Your task to perform on an android device: turn on showing notifications on the lock screen Image 0: 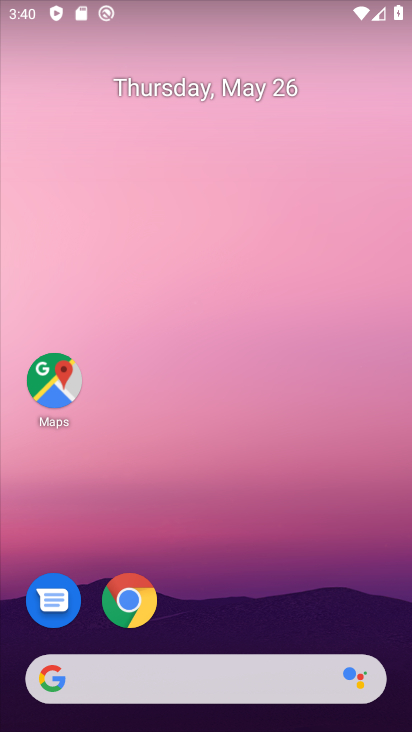
Step 0: drag from (198, 583) to (311, 18)
Your task to perform on an android device: turn on showing notifications on the lock screen Image 1: 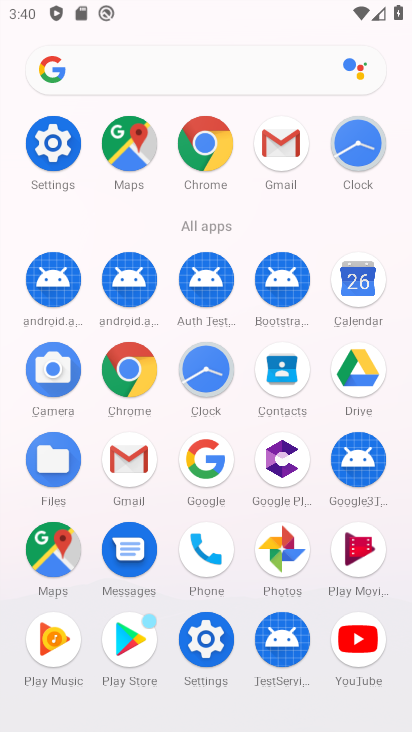
Step 1: click (57, 149)
Your task to perform on an android device: turn on showing notifications on the lock screen Image 2: 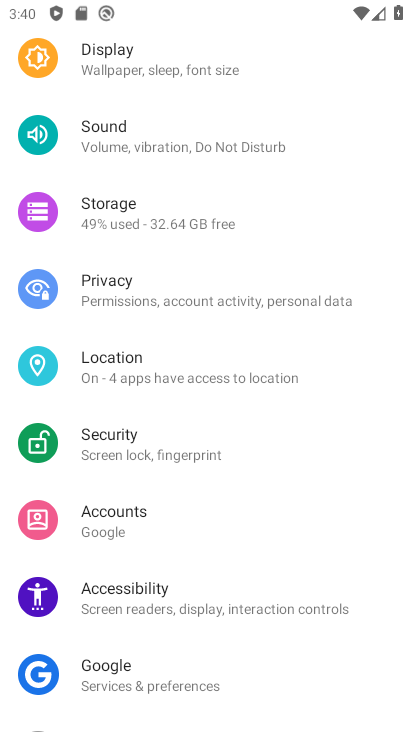
Step 2: drag from (191, 223) to (164, 532)
Your task to perform on an android device: turn on showing notifications on the lock screen Image 3: 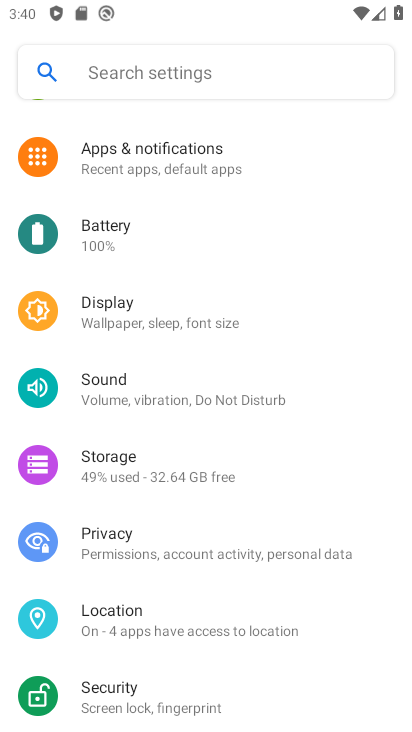
Step 3: click (170, 173)
Your task to perform on an android device: turn on showing notifications on the lock screen Image 4: 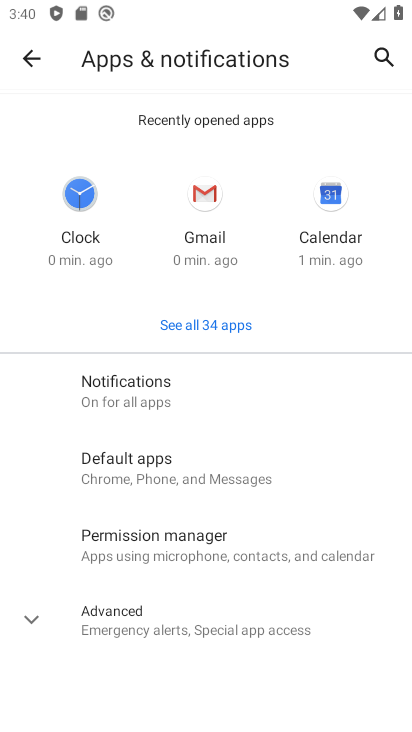
Step 4: click (167, 399)
Your task to perform on an android device: turn on showing notifications on the lock screen Image 5: 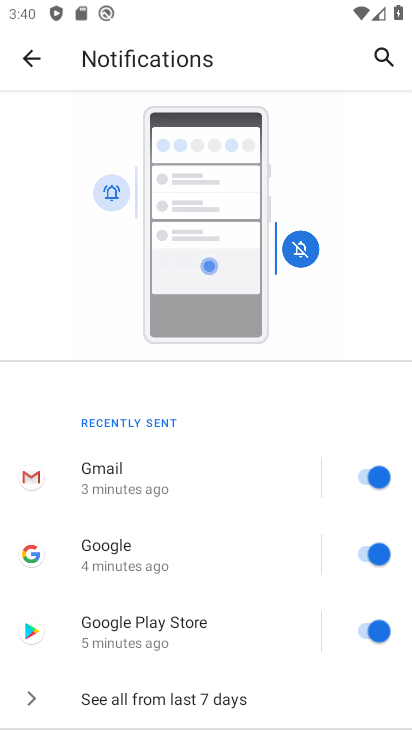
Step 5: drag from (171, 632) to (185, 411)
Your task to perform on an android device: turn on showing notifications on the lock screen Image 6: 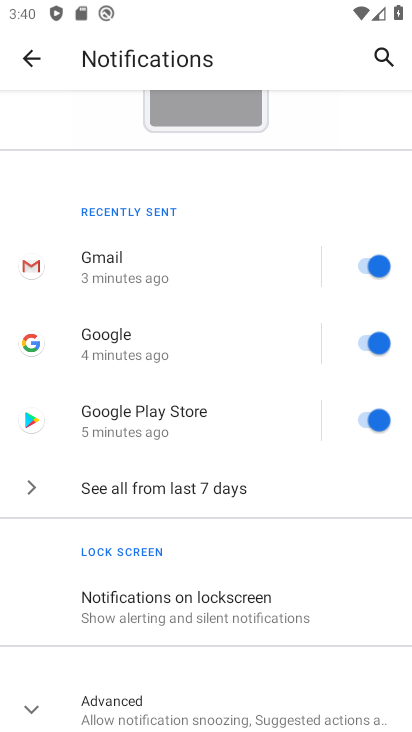
Step 6: click (180, 618)
Your task to perform on an android device: turn on showing notifications on the lock screen Image 7: 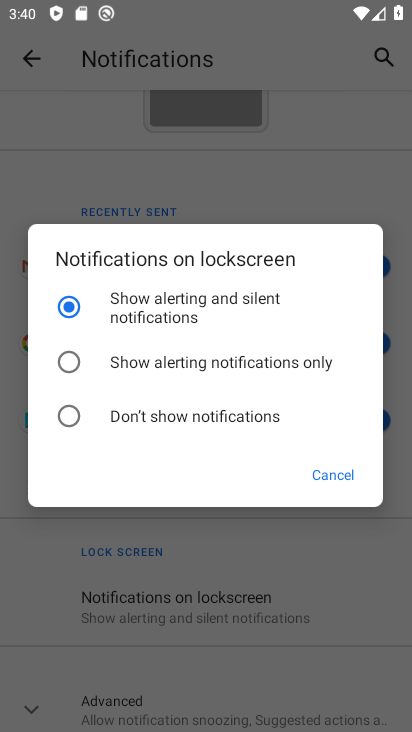
Step 7: task complete